Your task to perform on an android device: Add "acer predator" to the cart on costco.com, then select checkout. Image 0: 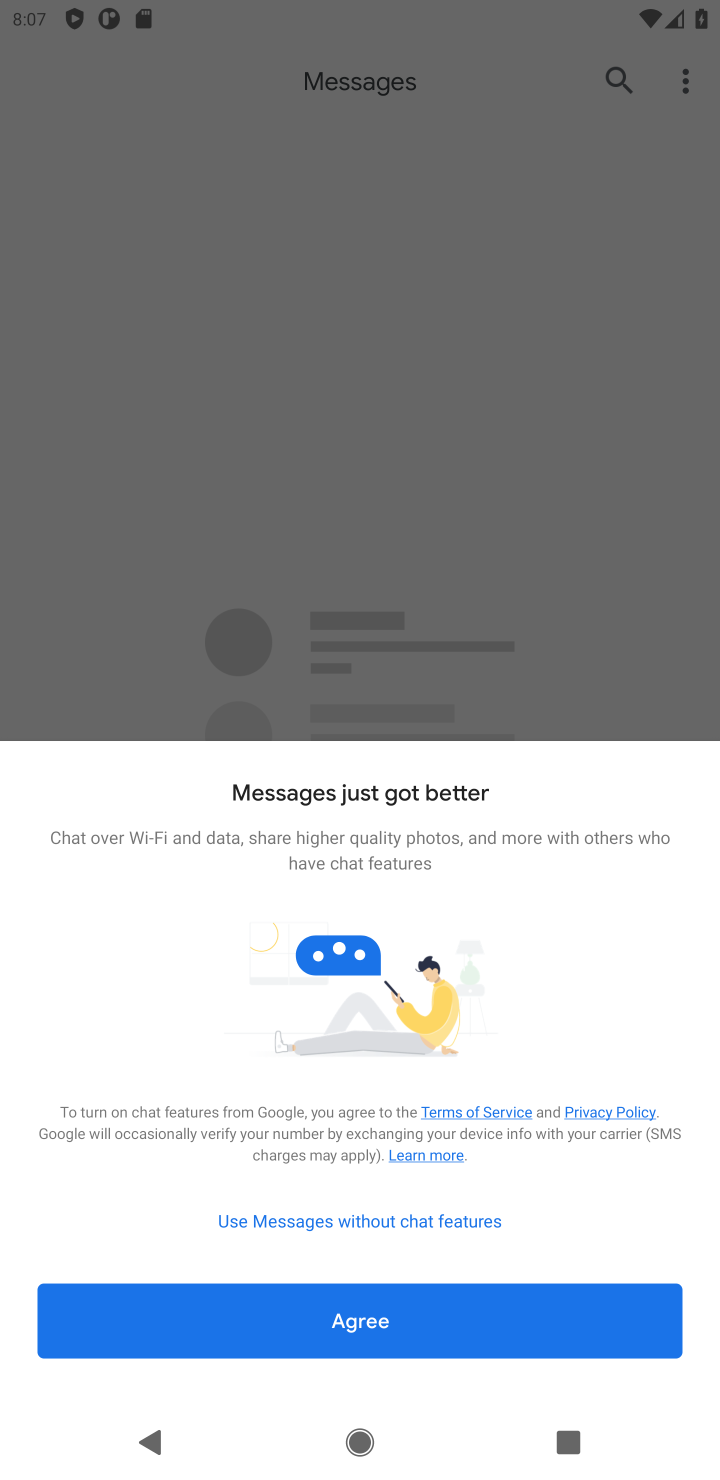
Step 0: press home button
Your task to perform on an android device: Add "acer predator" to the cart on costco.com, then select checkout. Image 1: 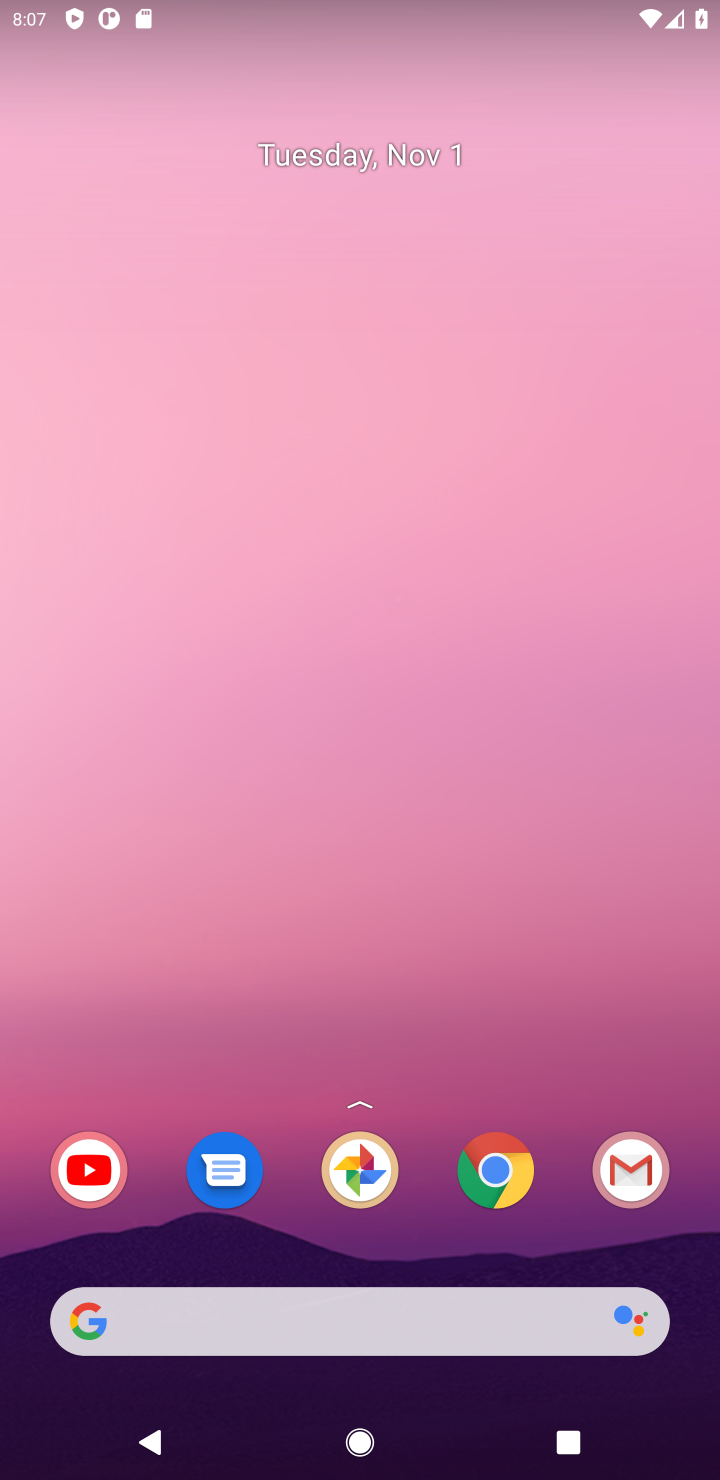
Step 1: click (503, 1188)
Your task to perform on an android device: Add "acer predator" to the cart on costco.com, then select checkout. Image 2: 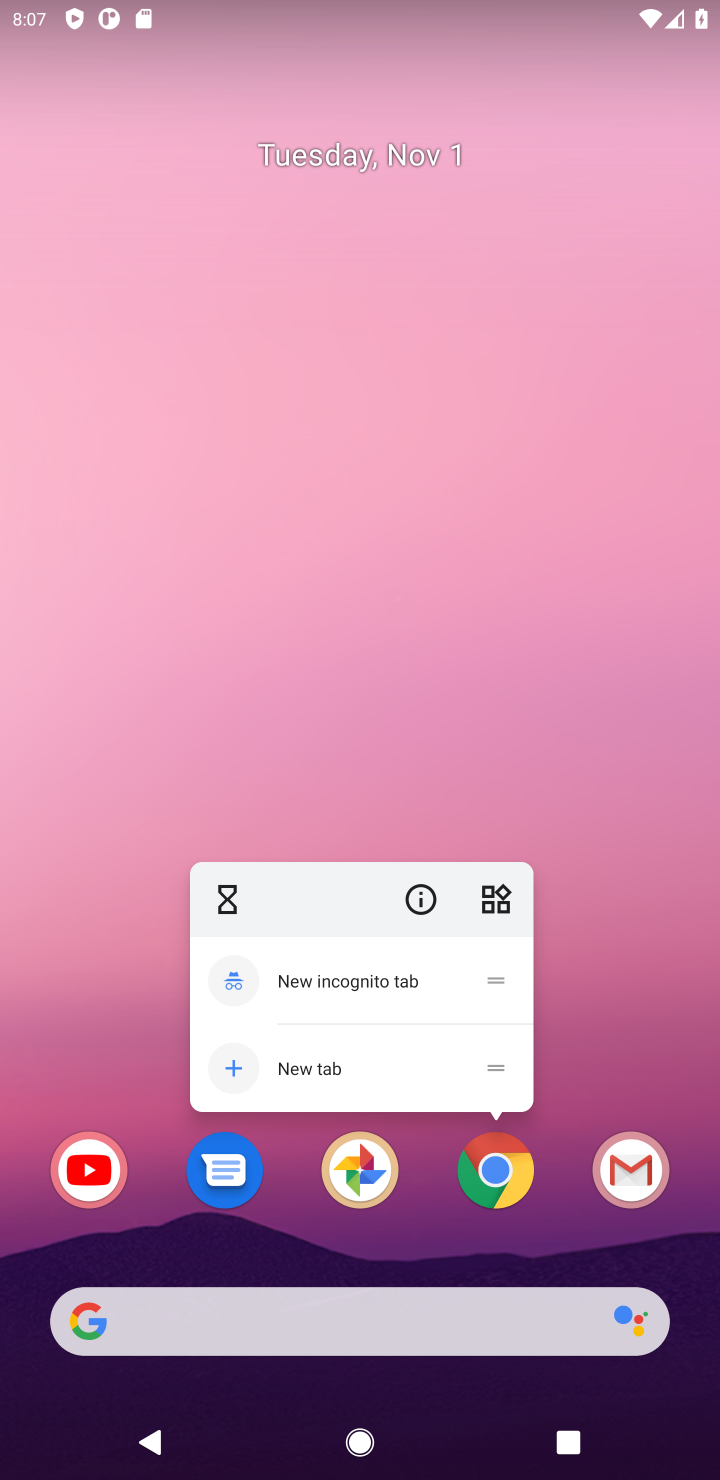
Step 2: click (508, 1173)
Your task to perform on an android device: Add "acer predator" to the cart on costco.com, then select checkout. Image 3: 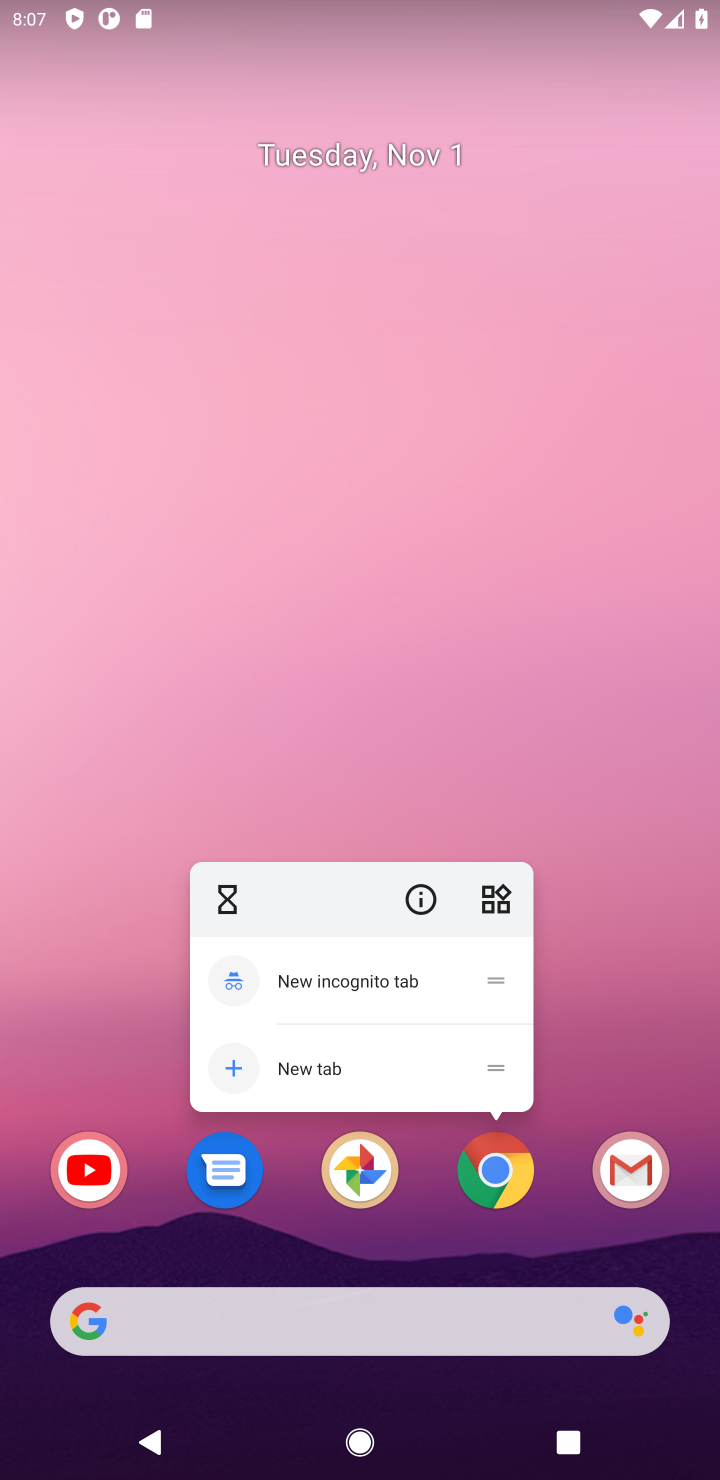
Step 3: click (511, 1187)
Your task to perform on an android device: Add "acer predator" to the cart on costco.com, then select checkout. Image 4: 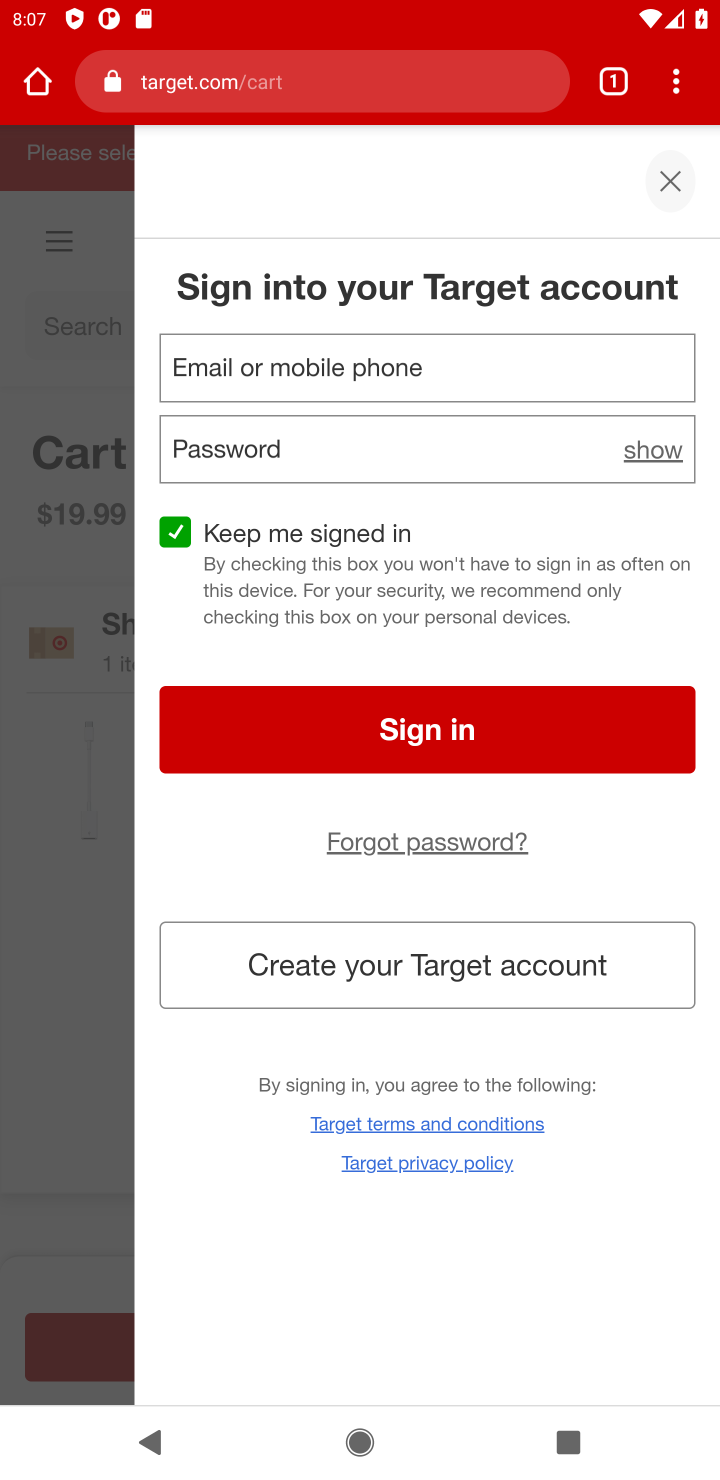
Step 4: click (279, 77)
Your task to perform on an android device: Add "acer predator" to the cart on costco.com, then select checkout. Image 5: 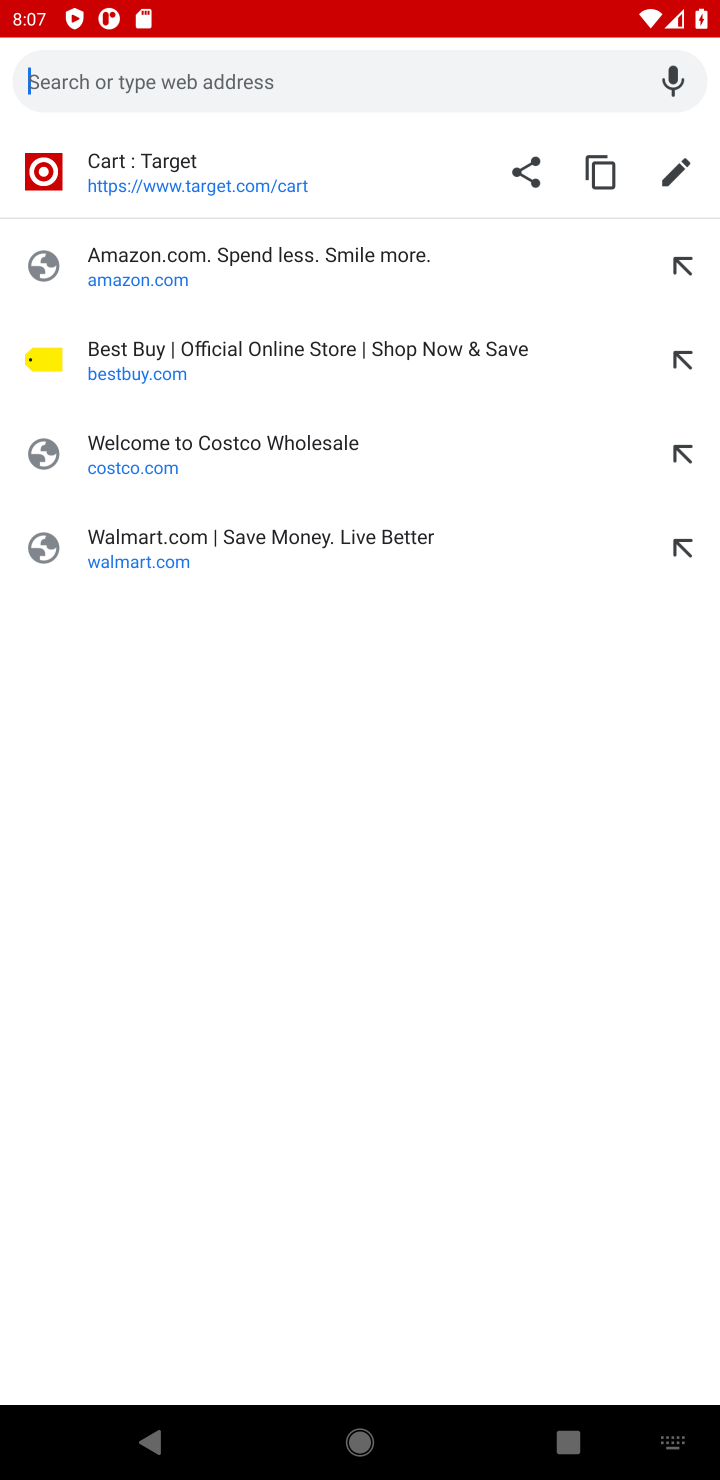
Step 5: type "costco.com"
Your task to perform on an android device: Add "acer predator" to the cart on costco.com, then select checkout. Image 6: 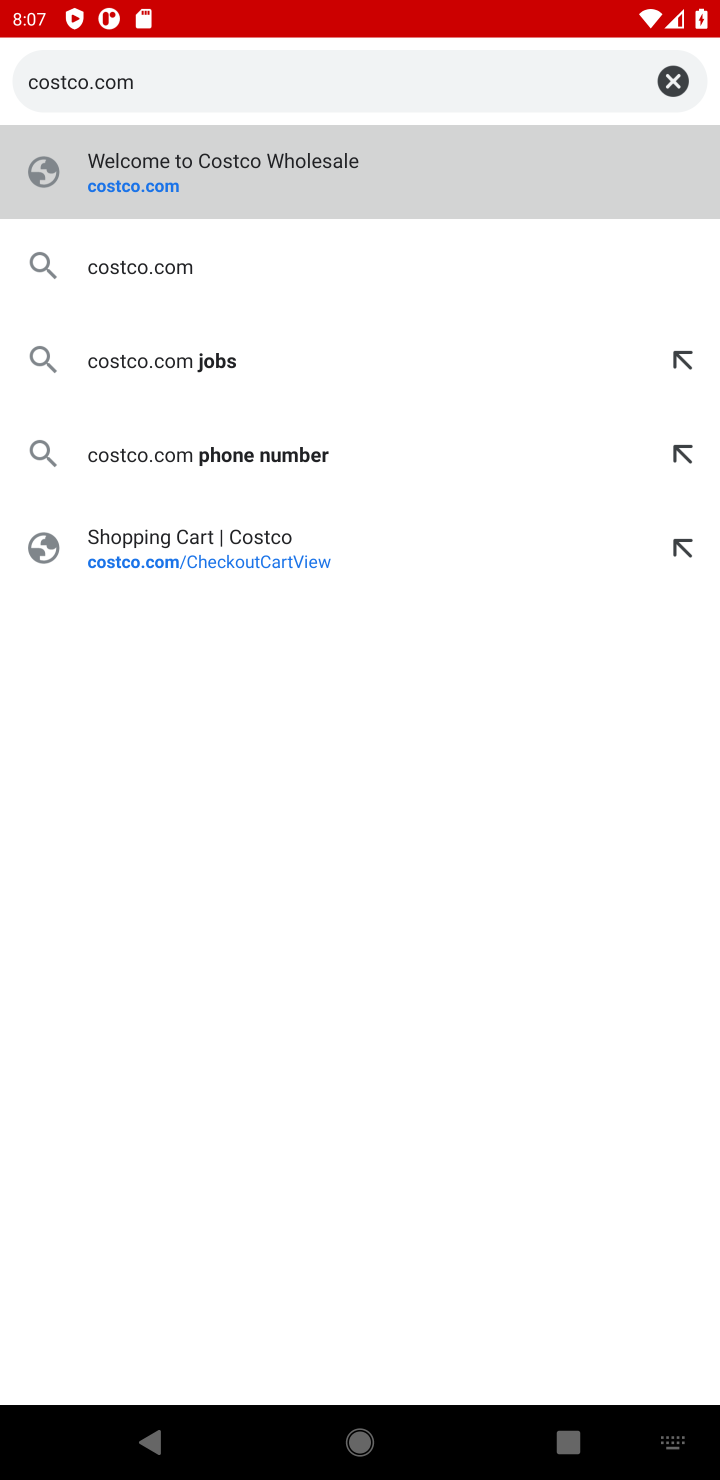
Step 6: type ""
Your task to perform on an android device: Add "acer predator" to the cart on costco.com, then select checkout. Image 7: 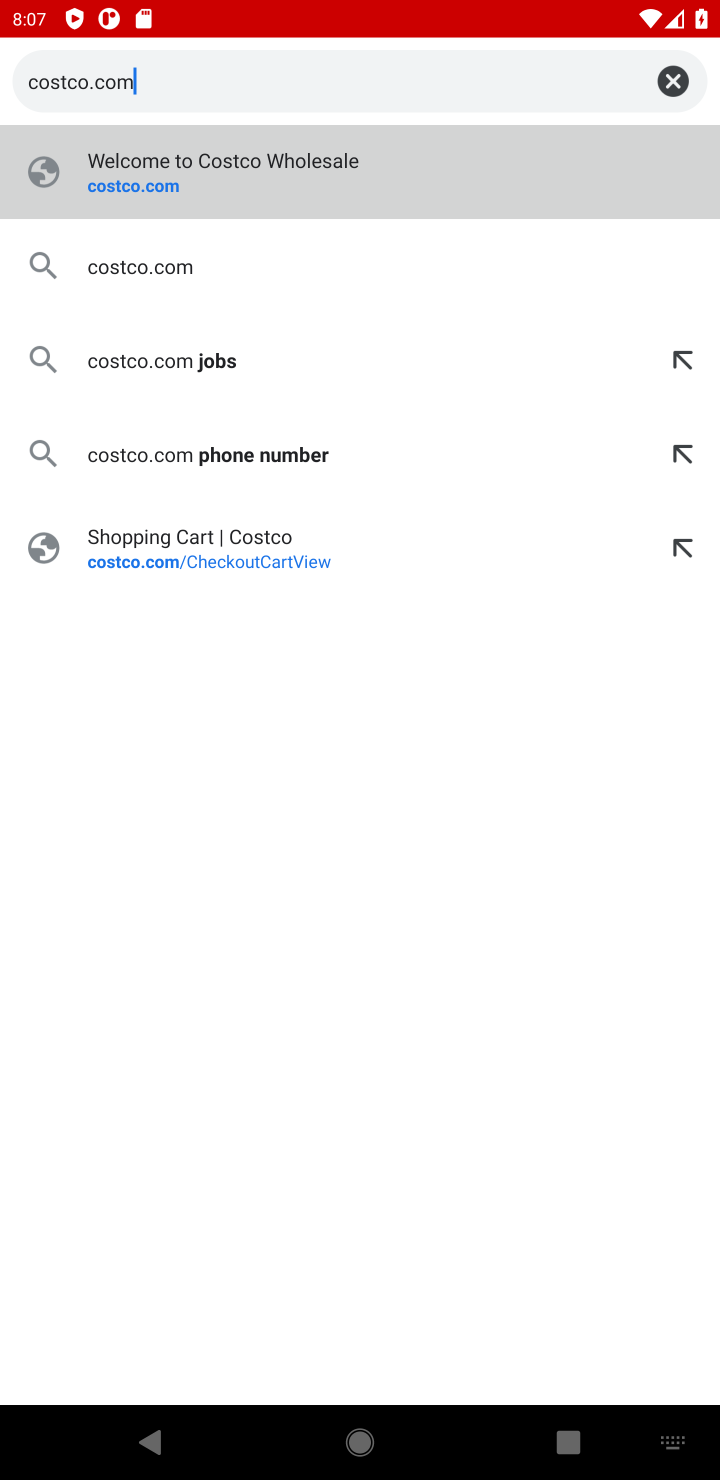
Step 7: press enter
Your task to perform on an android device: Add "acer predator" to the cart on costco.com, then select checkout. Image 8: 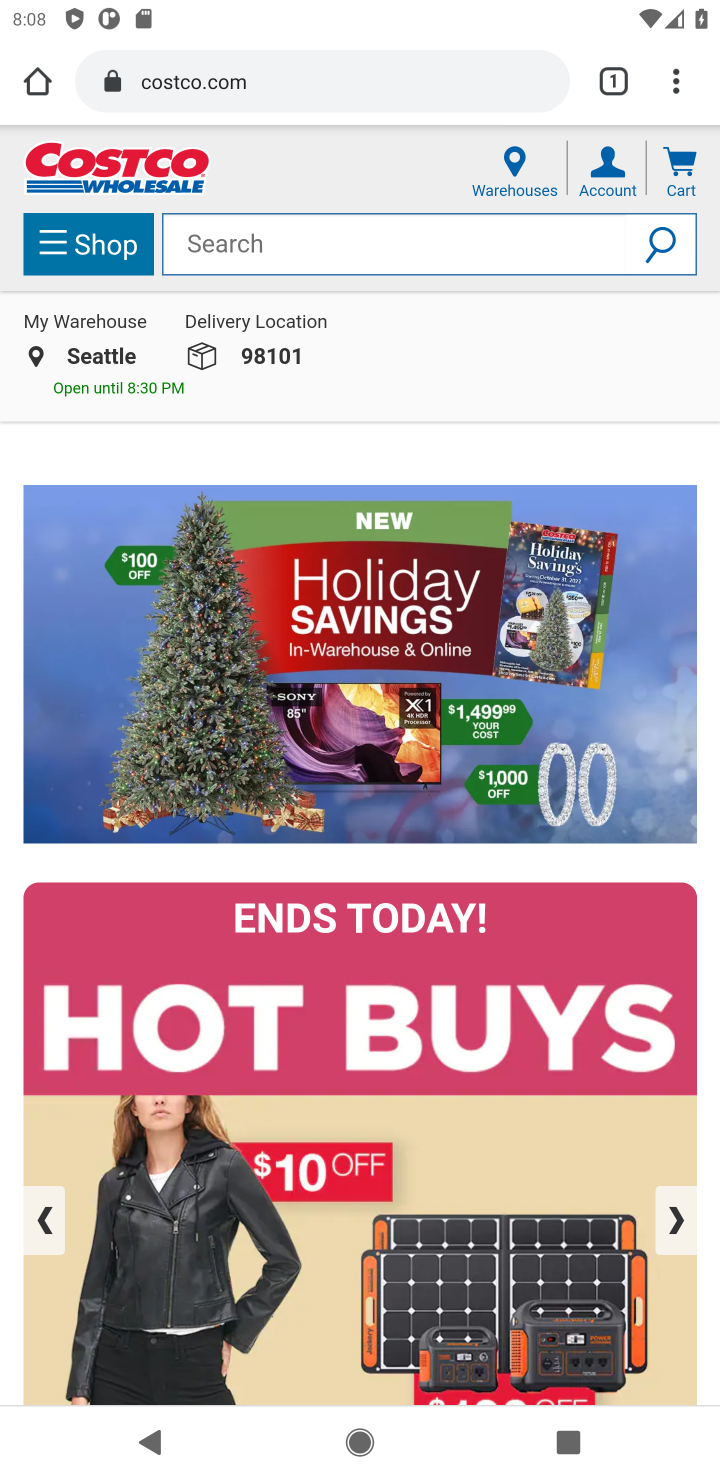
Step 8: click (277, 206)
Your task to perform on an android device: Add "acer predator" to the cart on costco.com, then select checkout. Image 9: 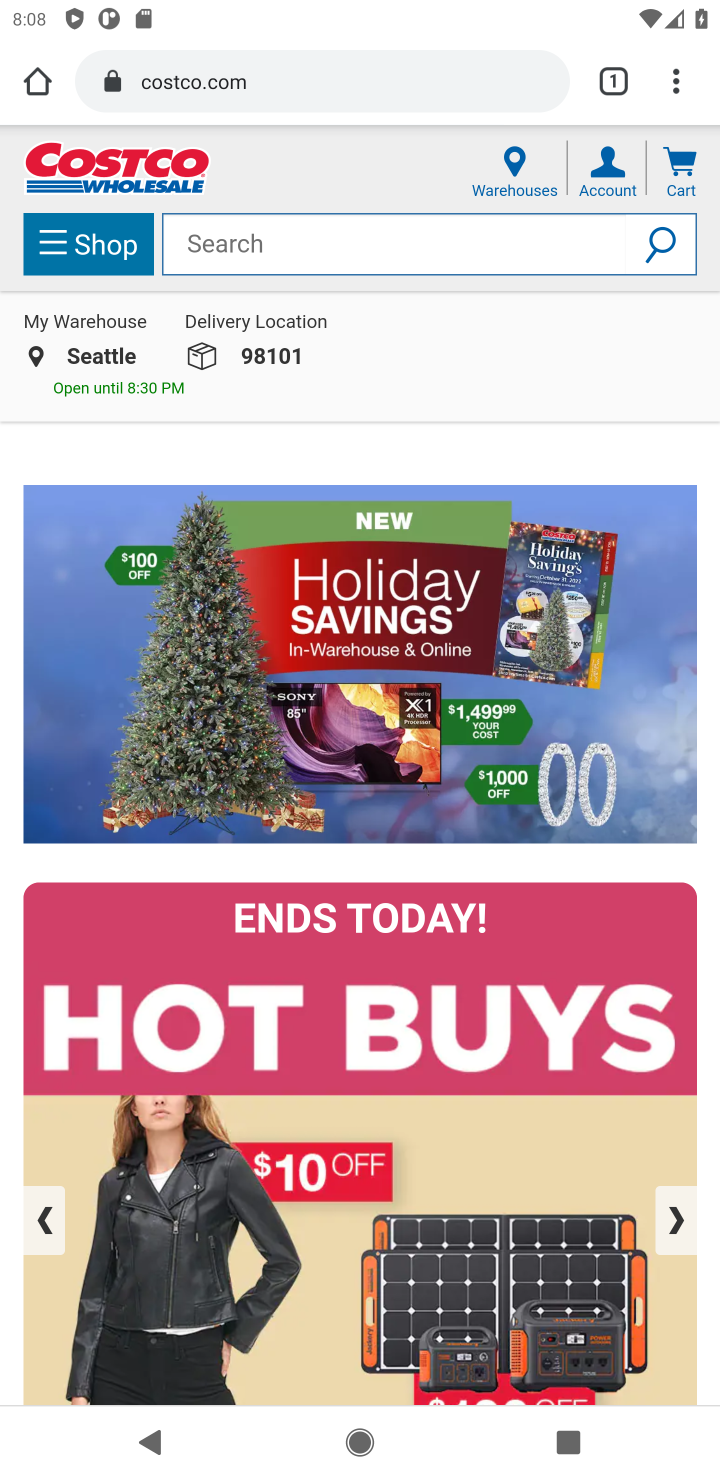
Step 9: click (287, 250)
Your task to perform on an android device: Add "acer predator" to the cart on costco.com, then select checkout. Image 10: 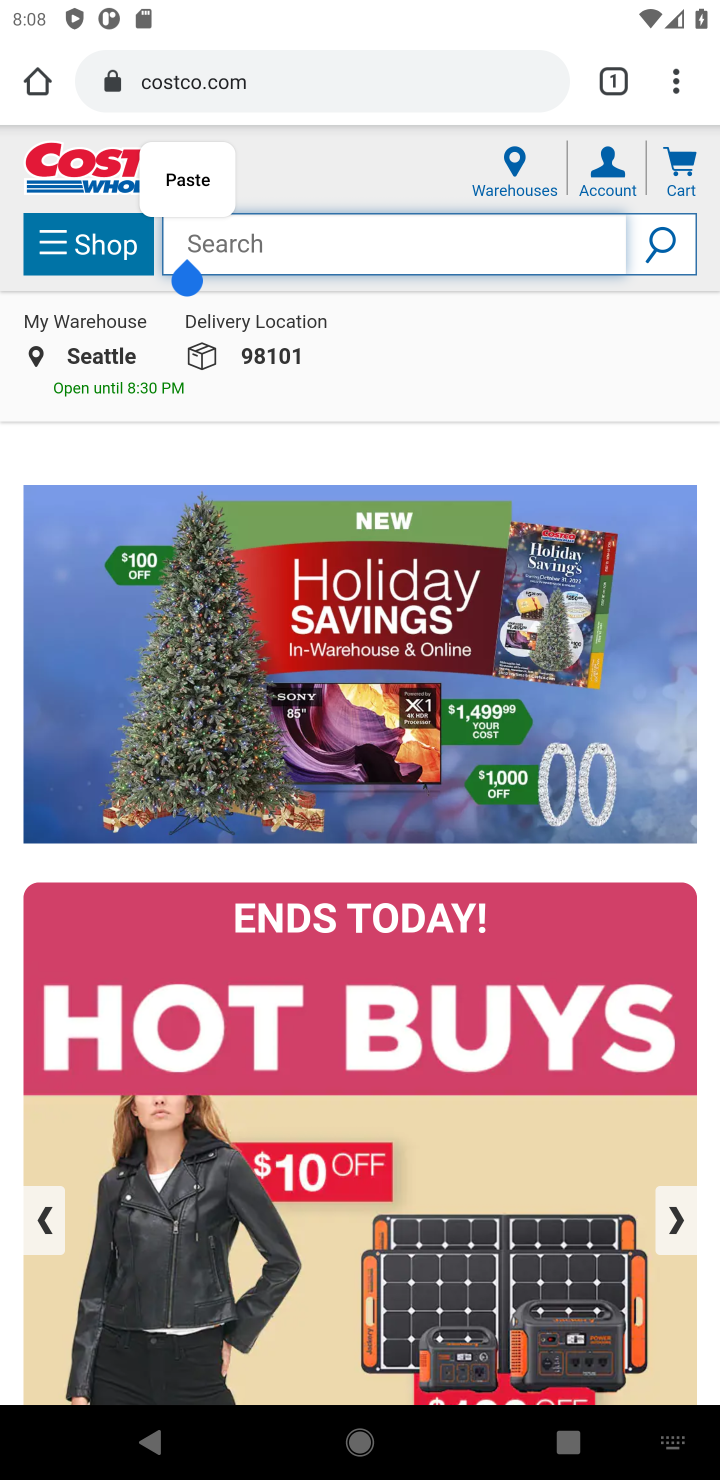
Step 10: type "acer predator"
Your task to perform on an android device: Add "acer predator" to the cart on costco.com, then select checkout. Image 11: 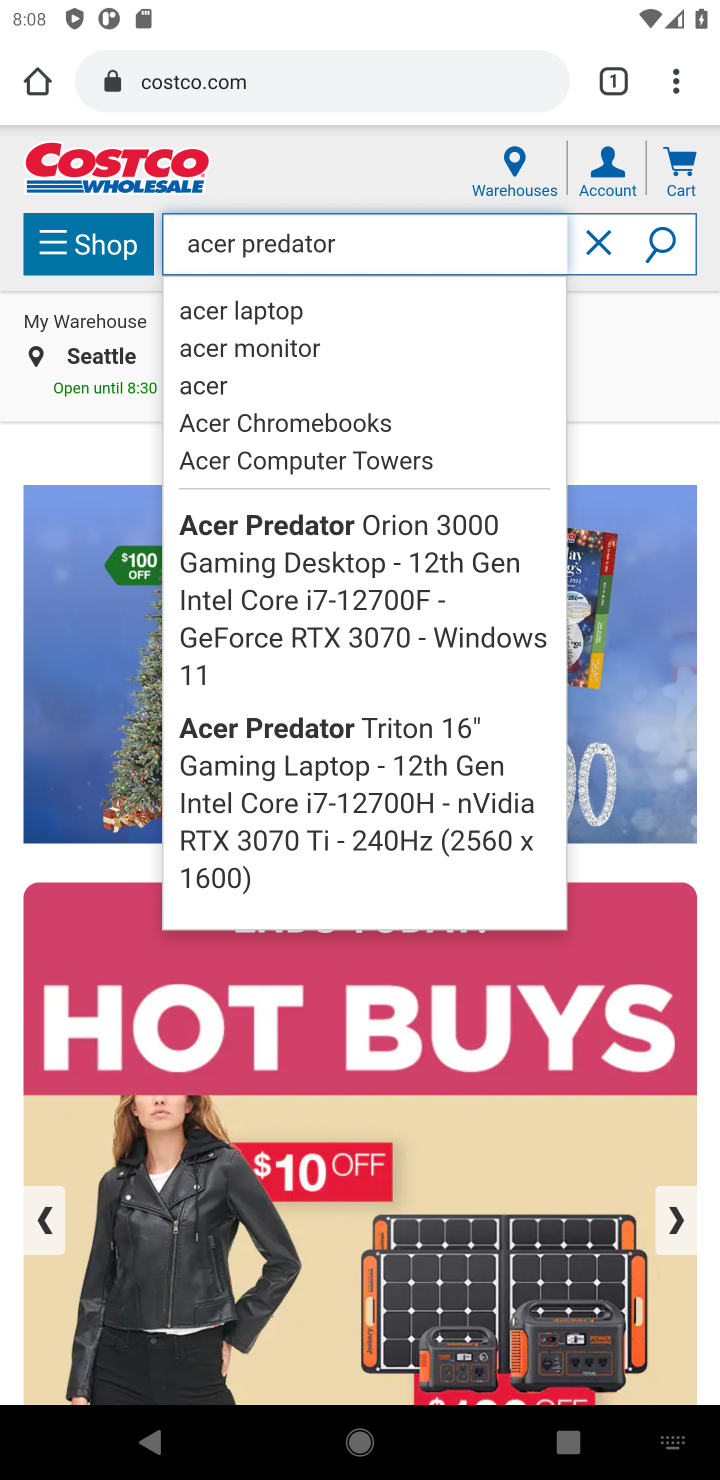
Step 11: press enter
Your task to perform on an android device: Add "acer predator" to the cart on costco.com, then select checkout. Image 12: 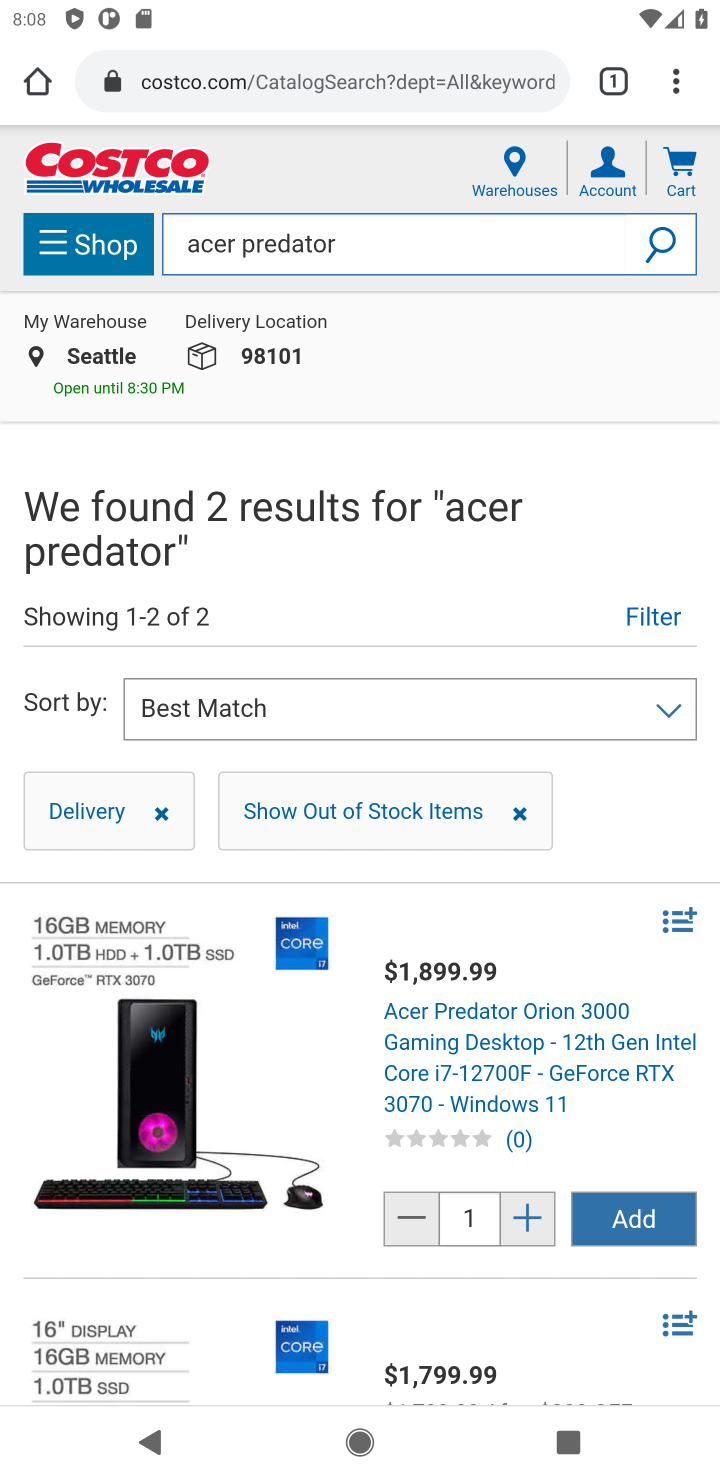
Step 12: drag from (474, 1107) to (462, 965)
Your task to perform on an android device: Add "acer predator" to the cart on costco.com, then select checkout. Image 13: 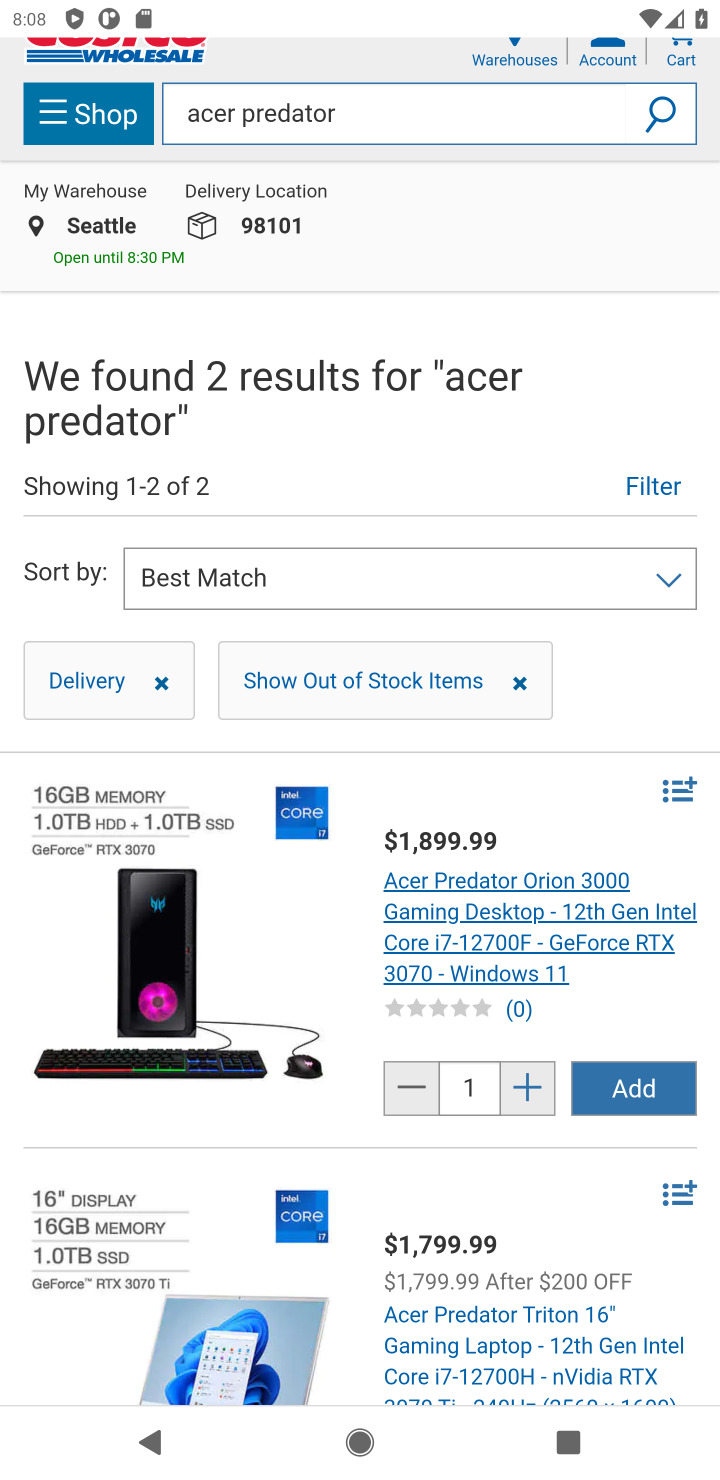
Step 13: click (490, 927)
Your task to perform on an android device: Add "acer predator" to the cart on costco.com, then select checkout. Image 14: 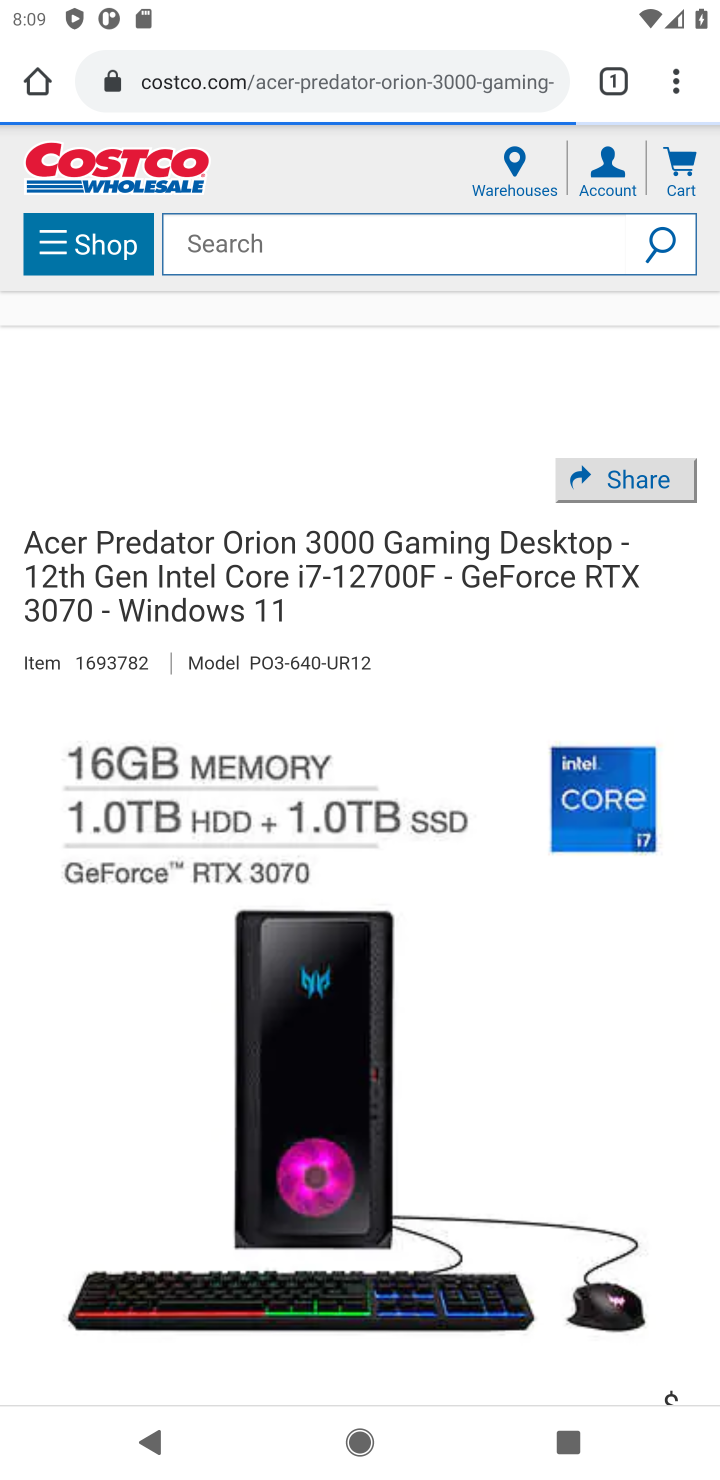
Step 14: drag from (506, 1085) to (399, 395)
Your task to perform on an android device: Add "acer predator" to the cart on costco.com, then select checkout. Image 15: 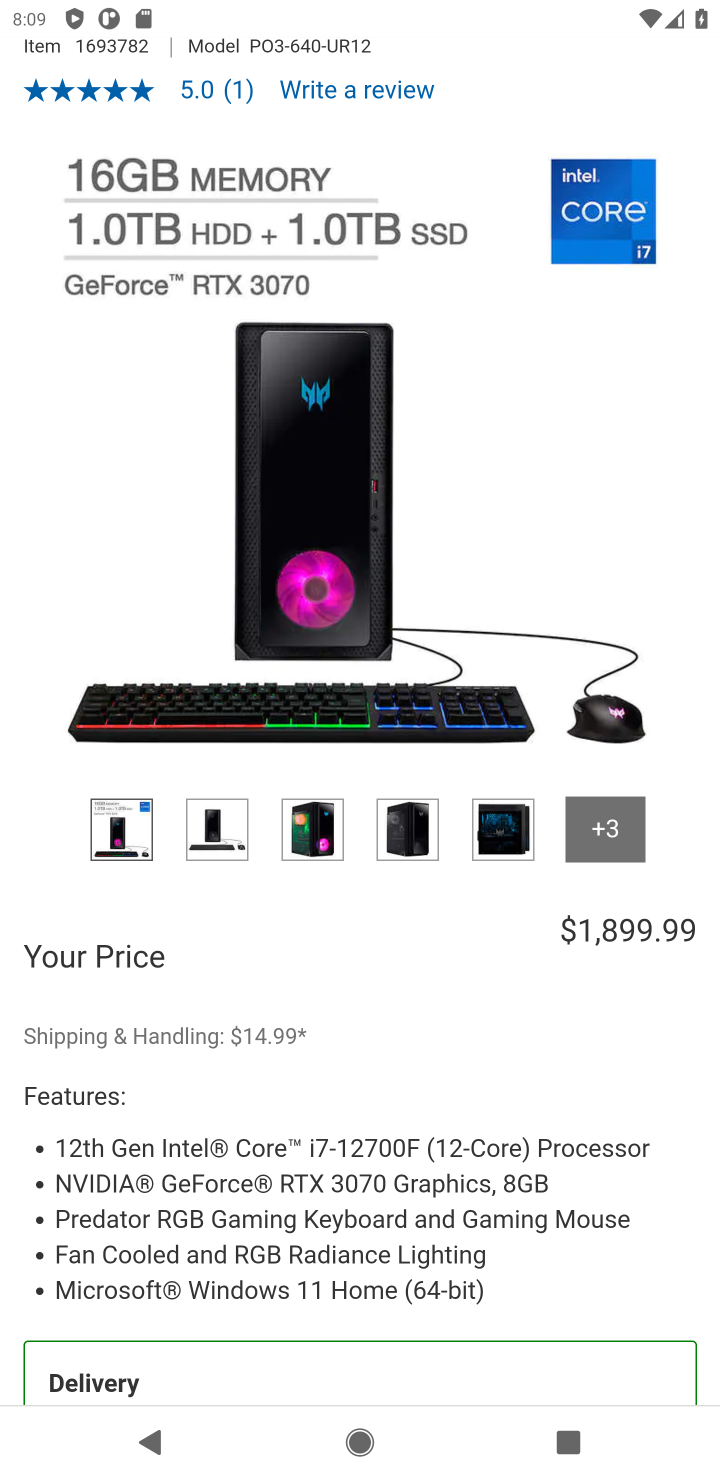
Step 15: drag from (461, 1120) to (390, 490)
Your task to perform on an android device: Add "acer predator" to the cart on costco.com, then select checkout. Image 16: 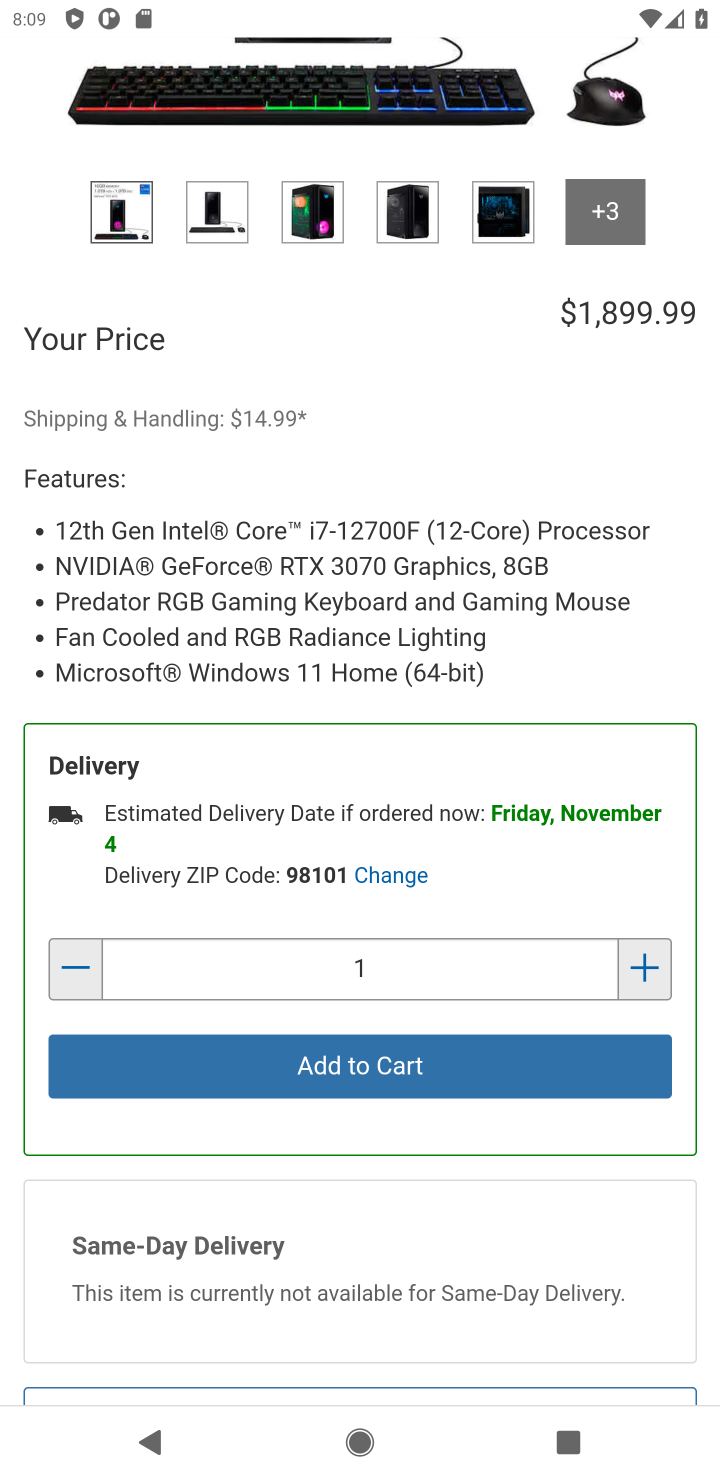
Step 16: click (426, 1064)
Your task to perform on an android device: Add "acer predator" to the cart on costco.com, then select checkout. Image 17: 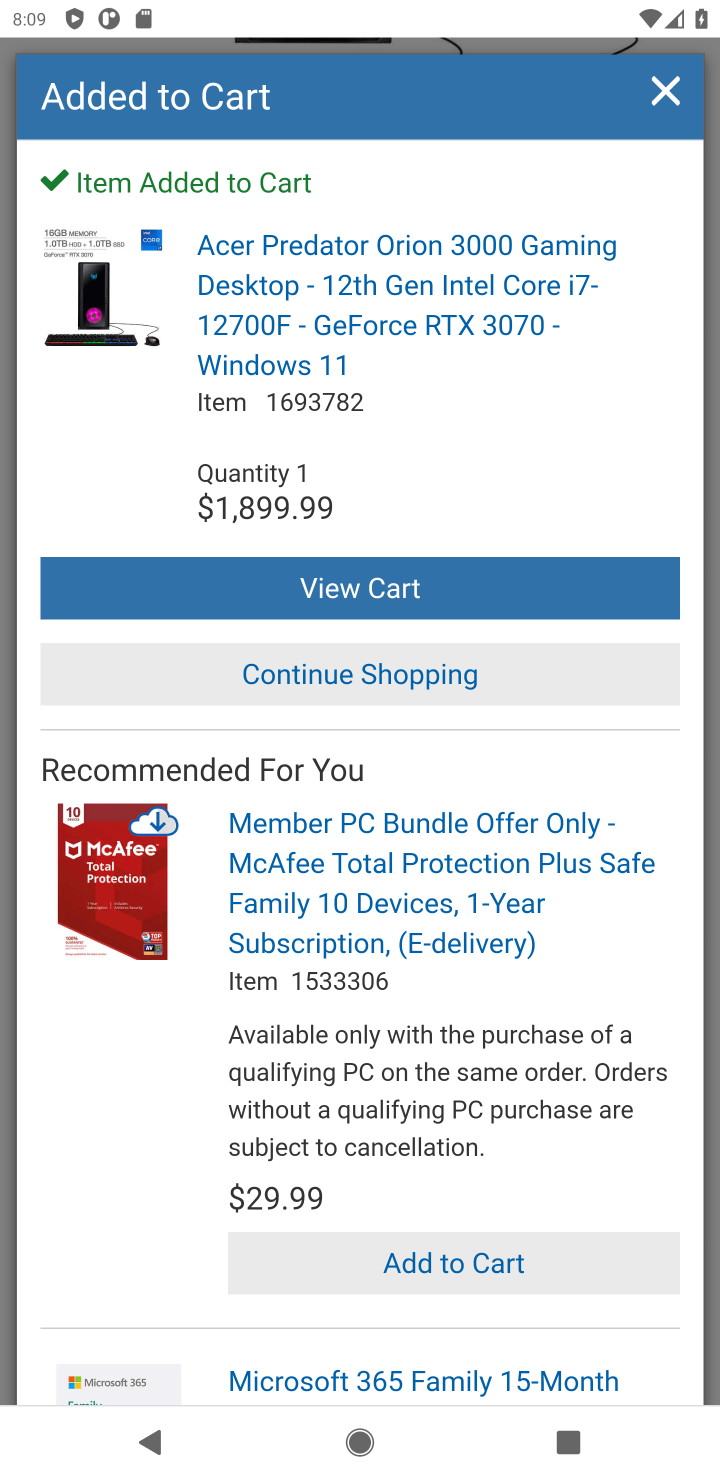
Step 17: click (530, 585)
Your task to perform on an android device: Add "acer predator" to the cart on costco.com, then select checkout. Image 18: 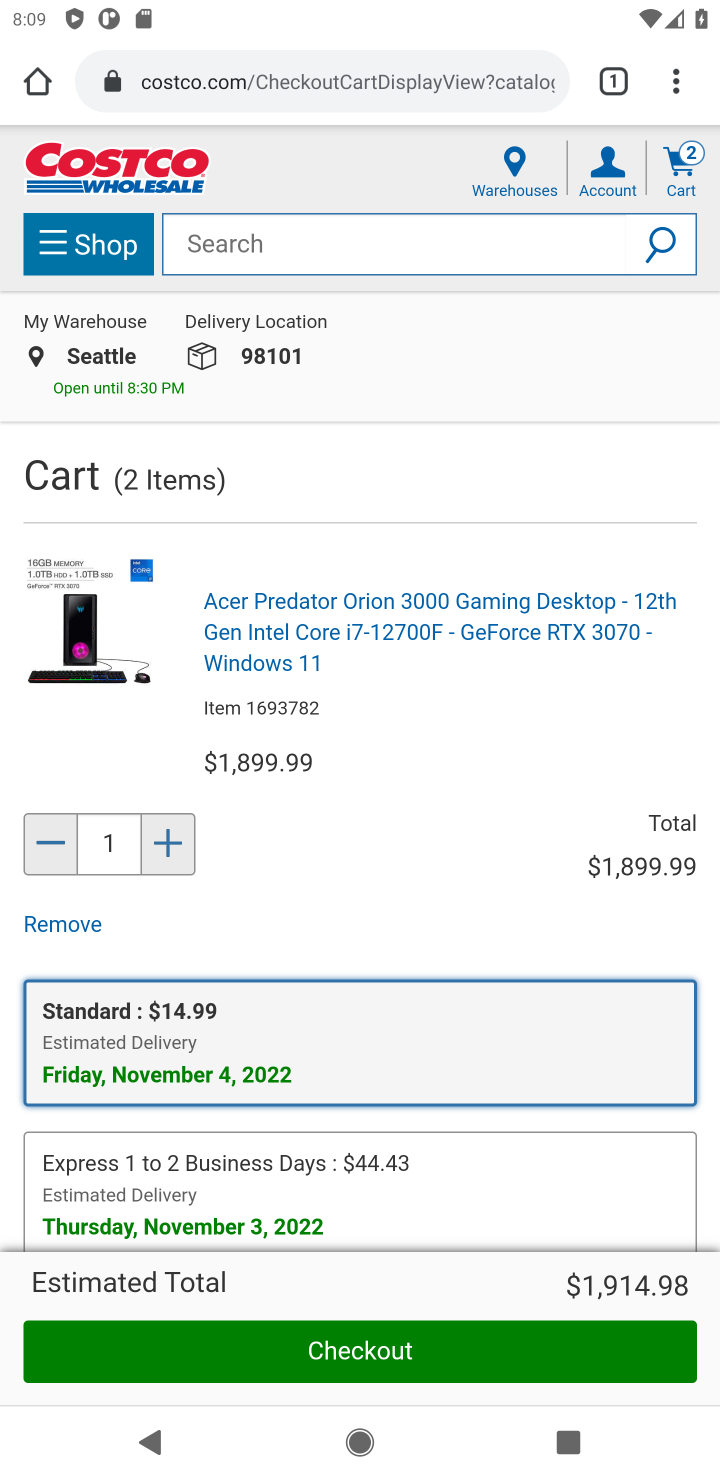
Step 18: click (445, 1354)
Your task to perform on an android device: Add "acer predator" to the cart on costco.com, then select checkout. Image 19: 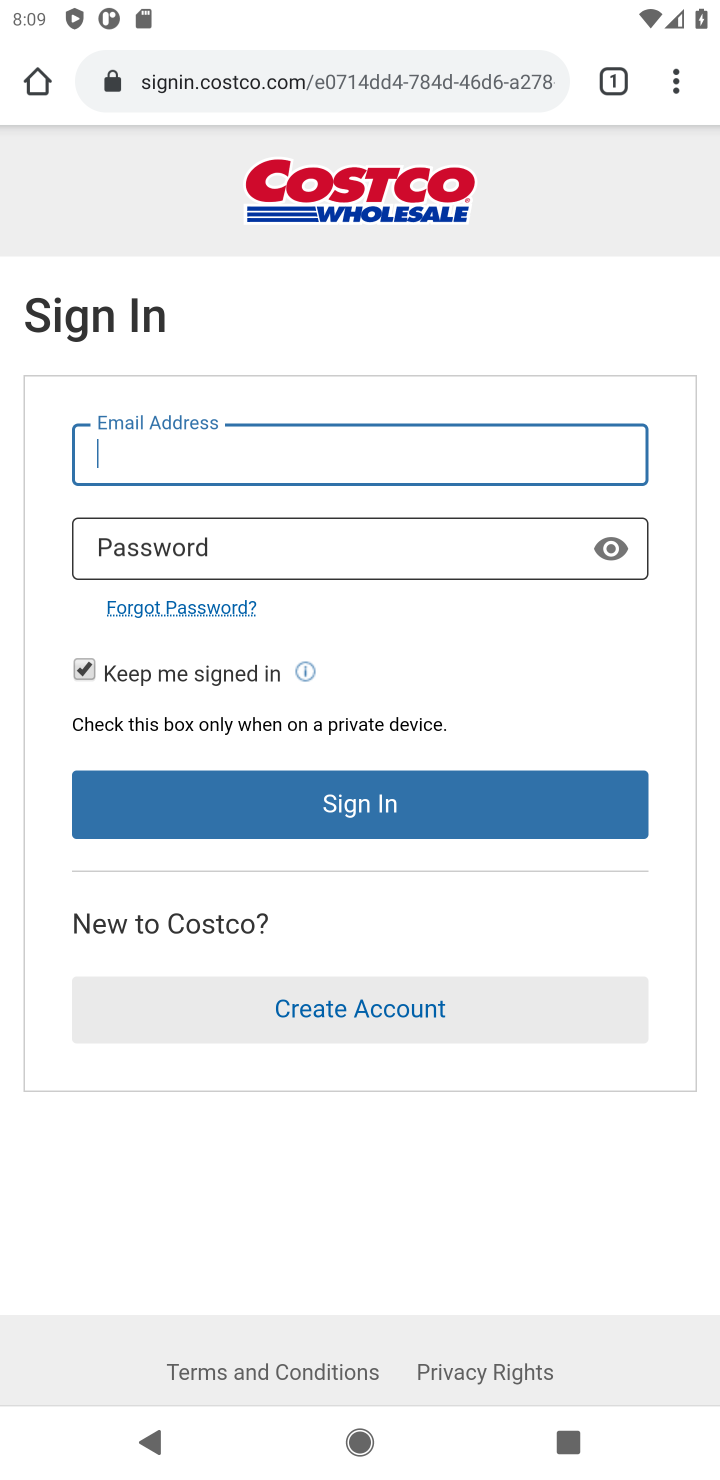
Step 19: task complete